Your task to perform on an android device: install app "Pluto TV - Live TV and Movies" Image 0: 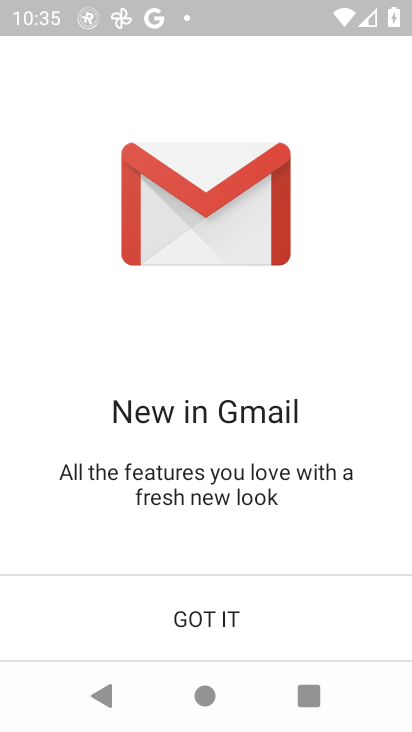
Step 0: press back button
Your task to perform on an android device: install app "Pluto TV - Live TV and Movies" Image 1: 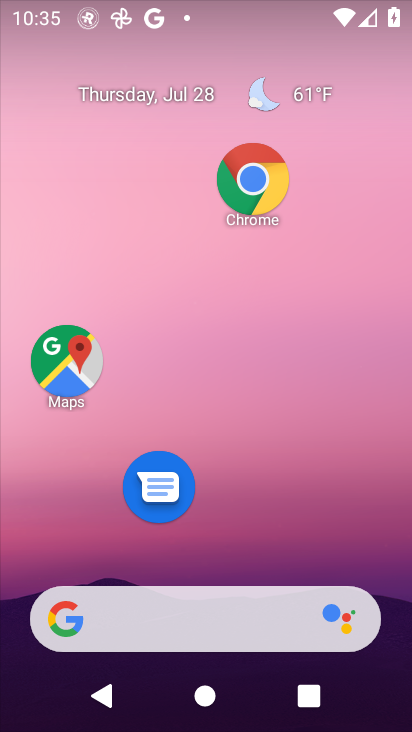
Step 1: drag from (195, 440) to (130, 31)
Your task to perform on an android device: install app "Pluto TV - Live TV and Movies" Image 2: 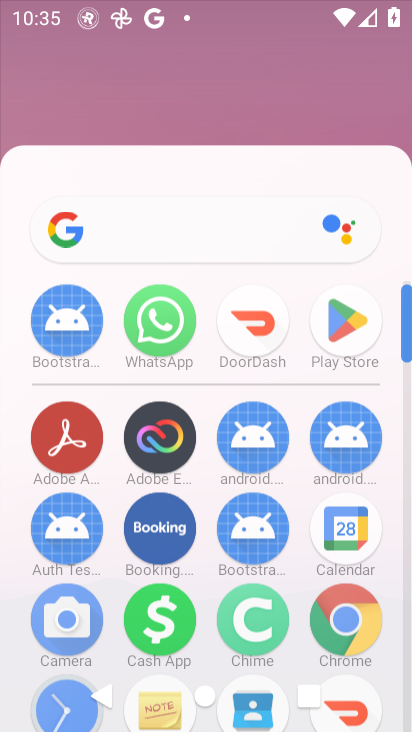
Step 2: drag from (197, 433) to (183, 91)
Your task to perform on an android device: install app "Pluto TV - Live TV and Movies" Image 3: 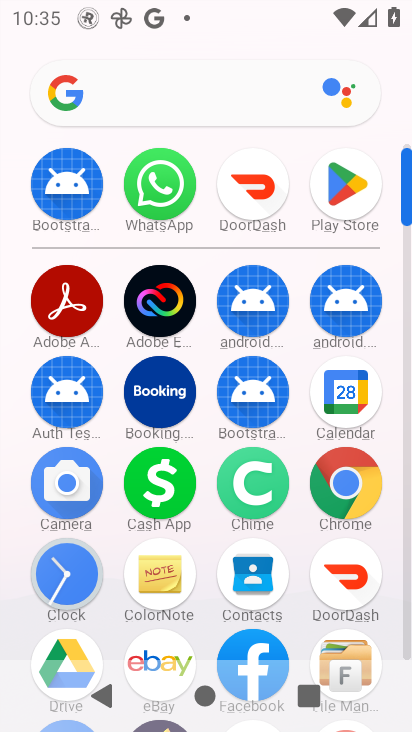
Step 3: click (340, 184)
Your task to perform on an android device: install app "Pluto TV - Live TV and Movies" Image 4: 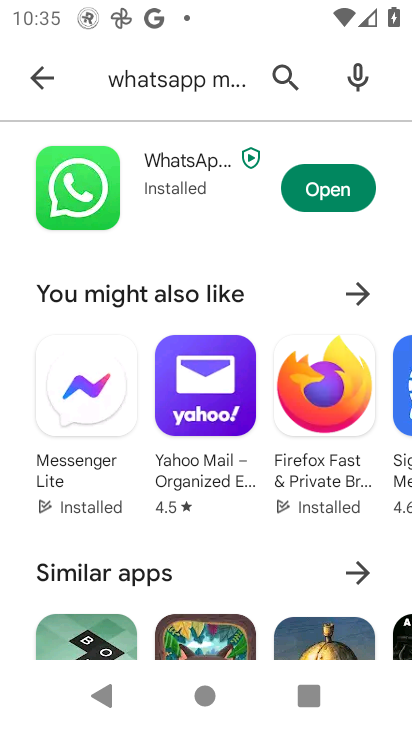
Step 4: click (26, 76)
Your task to perform on an android device: install app "Pluto TV - Live TV and Movies" Image 5: 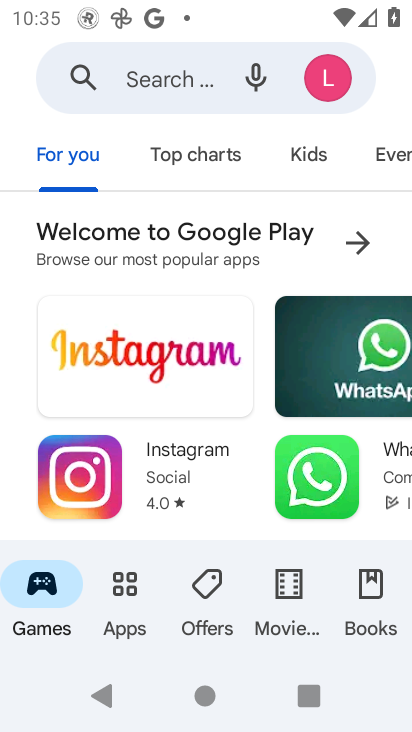
Step 5: click (129, 75)
Your task to perform on an android device: install app "Pluto TV - Live TV and Movies" Image 6: 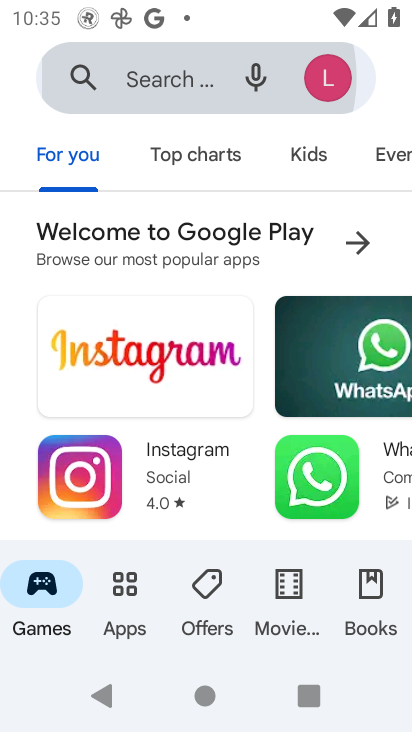
Step 6: click (129, 75)
Your task to perform on an android device: install app "Pluto TV - Live TV and Movies" Image 7: 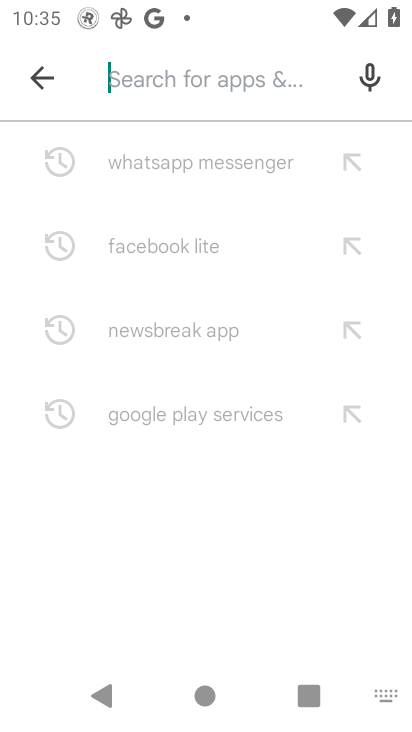
Step 7: click (129, 76)
Your task to perform on an android device: install app "Pluto TV - Live TV and Movies" Image 8: 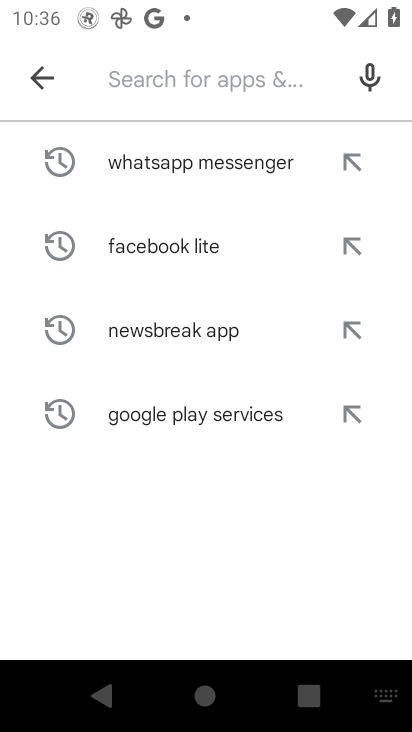
Step 8: type "Pluto- TV- Live TV and Movies"
Your task to perform on an android device: install app "Pluto TV - Live TV and Movies" Image 9: 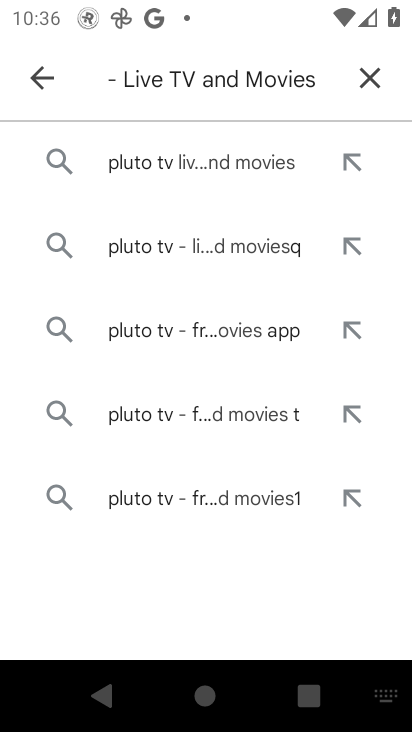
Step 9: click (216, 156)
Your task to perform on an android device: install app "Pluto TV - Live TV and Movies" Image 10: 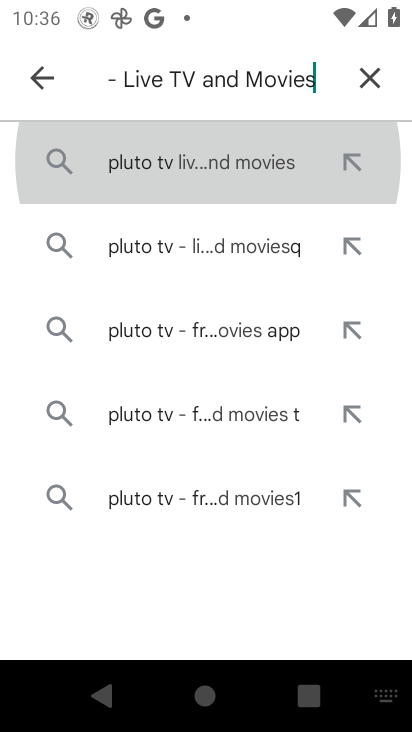
Step 10: click (215, 156)
Your task to perform on an android device: install app "Pluto TV - Live TV and Movies" Image 11: 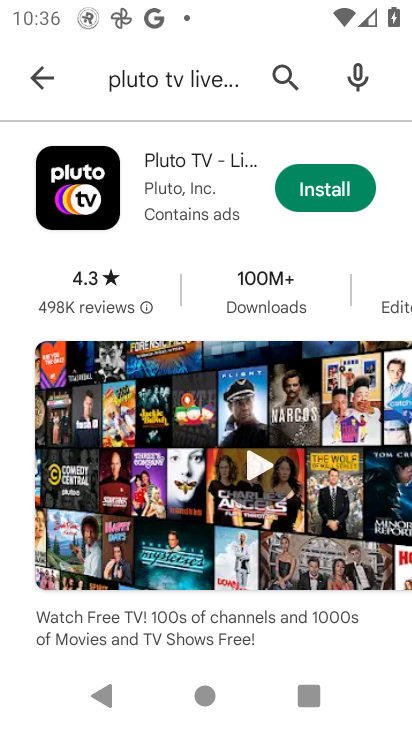
Step 11: click (317, 191)
Your task to perform on an android device: install app "Pluto TV - Live TV and Movies" Image 12: 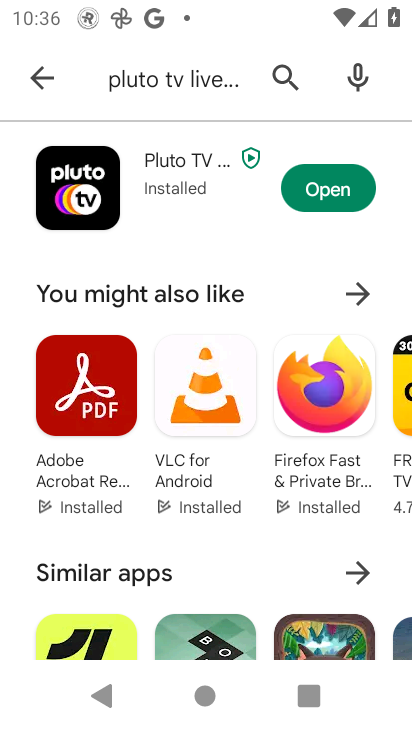
Step 12: click (310, 194)
Your task to perform on an android device: install app "Pluto TV - Live TV and Movies" Image 13: 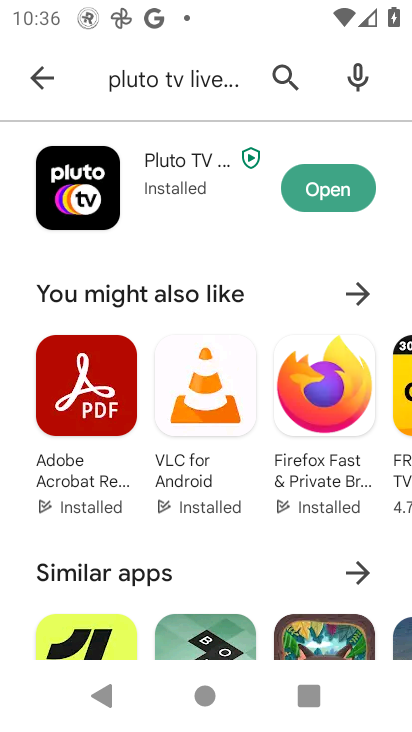
Step 13: click (311, 193)
Your task to perform on an android device: install app "Pluto TV - Live TV and Movies" Image 14: 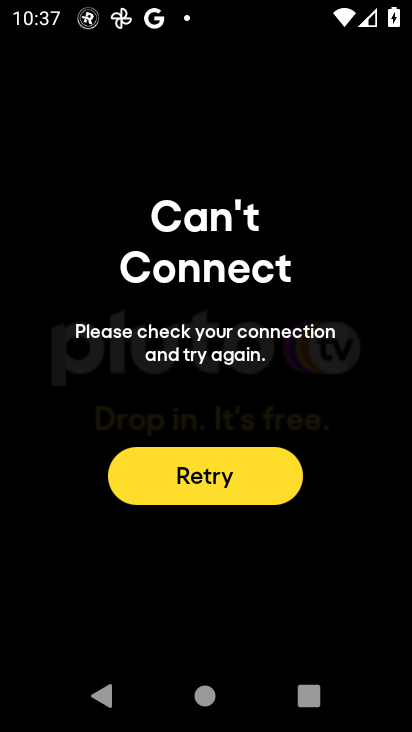
Step 14: click (313, 251)
Your task to perform on an android device: install app "Pluto TV - Live TV and Movies" Image 15: 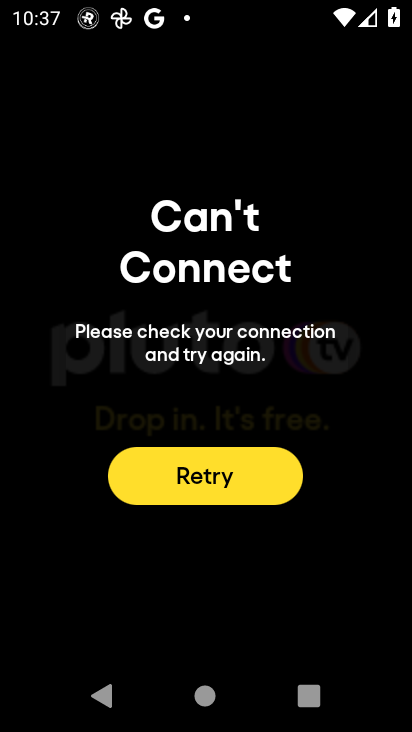
Step 15: click (314, 255)
Your task to perform on an android device: install app "Pluto TV - Live TV and Movies" Image 16: 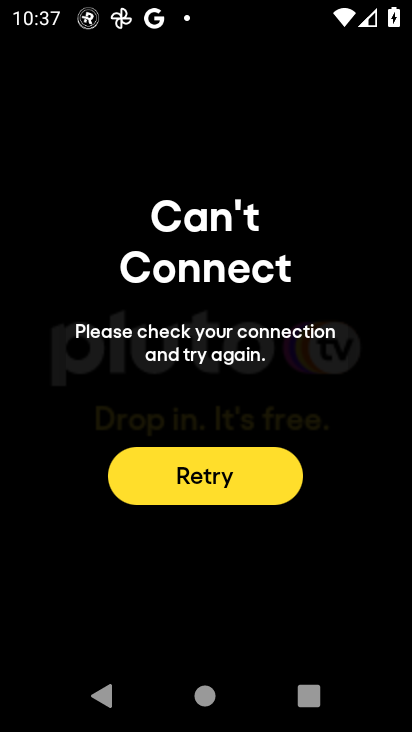
Step 16: click (314, 255)
Your task to perform on an android device: install app "Pluto TV - Live TV and Movies" Image 17: 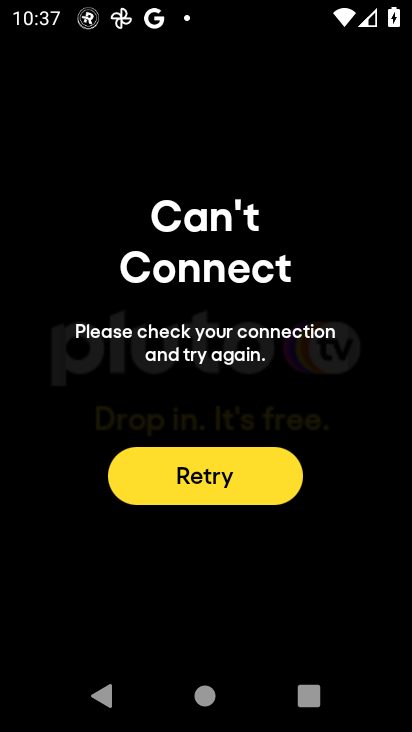
Step 17: click (323, 257)
Your task to perform on an android device: install app "Pluto TV - Live TV and Movies" Image 18: 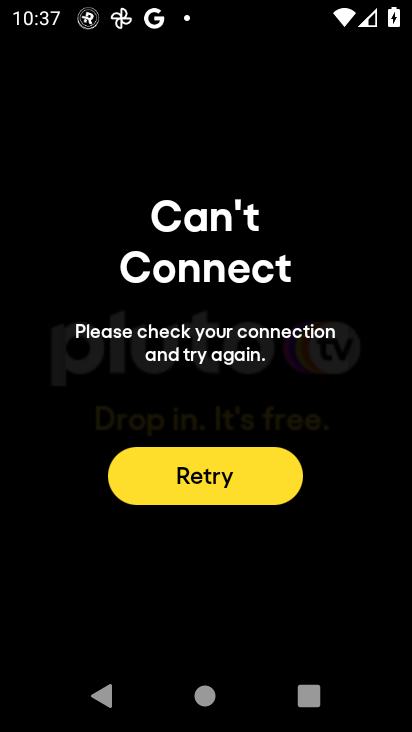
Step 18: click (323, 257)
Your task to perform on an android device: install app "Pluto TV - Live TV and Movies" Image 19: 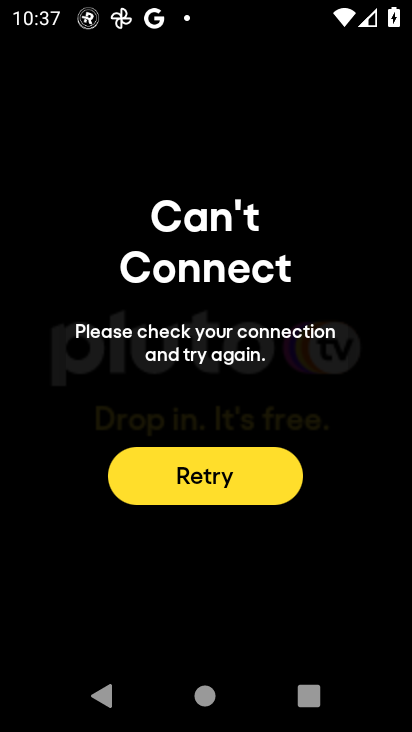
Step 19: click (323, 257)
Your task to perform on an android device: install app "Pluto TV - Live TV and Movies" Image 20: 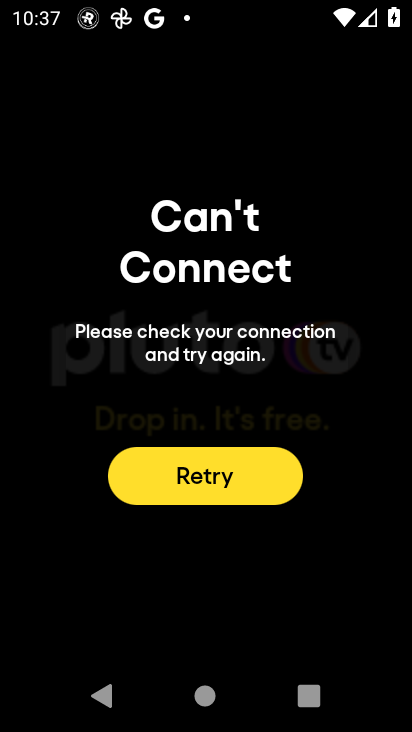
Step 20: click (323, 257)
Your task to perform on an android device: install app "Pluto TV - Live TV and Movies" Image 21: 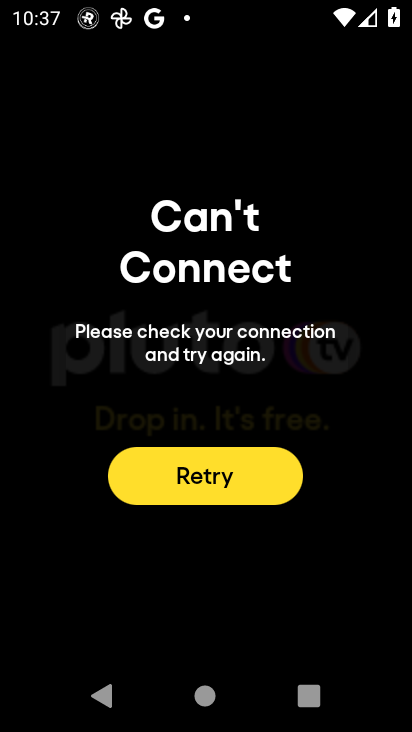
Step 21: click (323, 257)
Your task to perform on an android device: install app "Pluto TV - Live TV and Movies" Image 22: 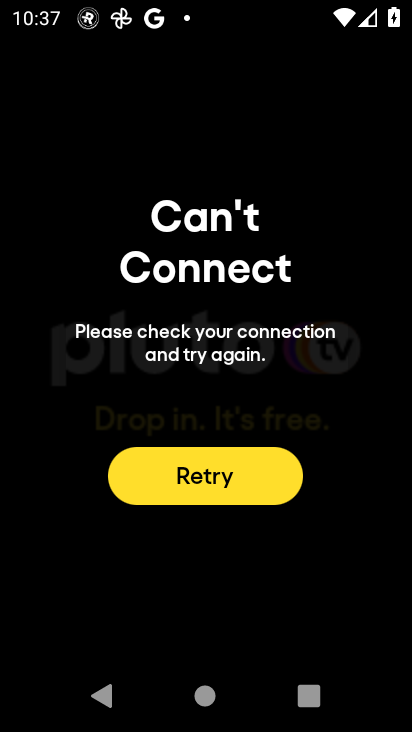
Step 22: click (324, 258)
Your task to perform on an android device: install app "Pluto TV - Live TV and Movies" Image 23: 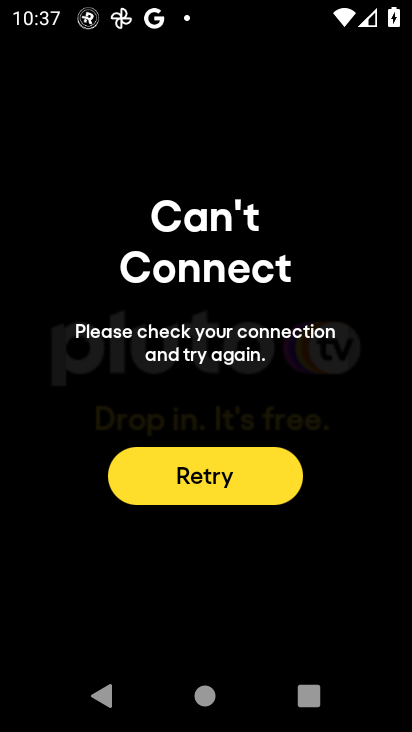
Step 23: click (326, 259)
Your task to perform on an android device: install app "Pluto TV - Live TV and Movies" Image 24: 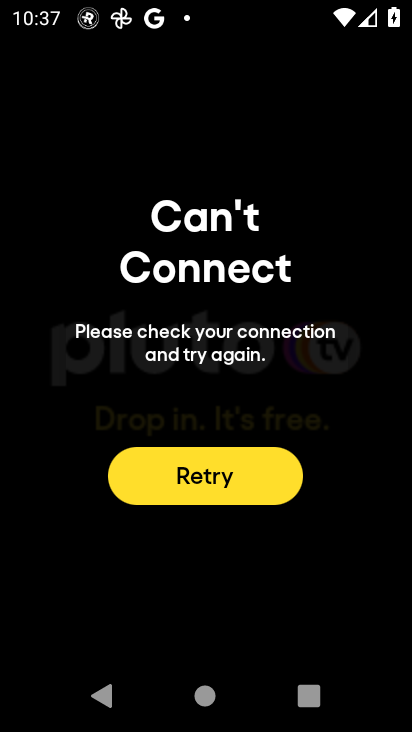
Step 24: press back button
Your task to perform on an android device: install app "Pluto TV - Live TV and Movies" Image 25: 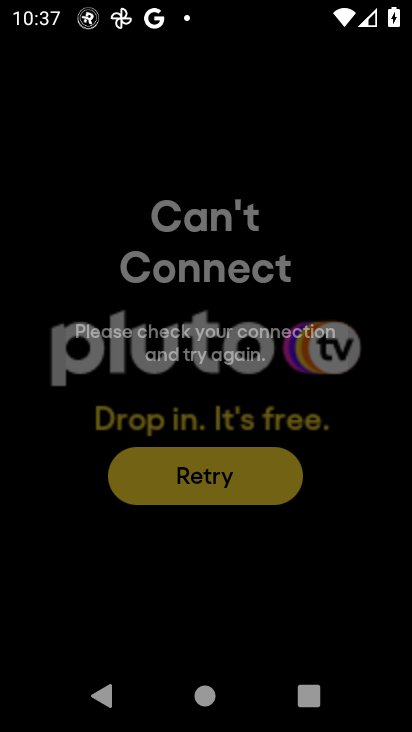
Step 25: press back button
Your task to perform on an android device: install app "Pluto TV - Live TV and Movies" Image 26: 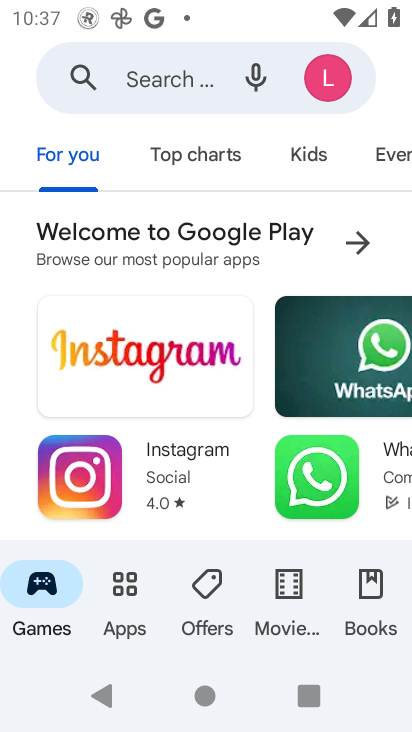
Step 26: click (148, 75)
Your task to perform on an android device: install app "Pluto TV - Live TV and Movies" Image 27: 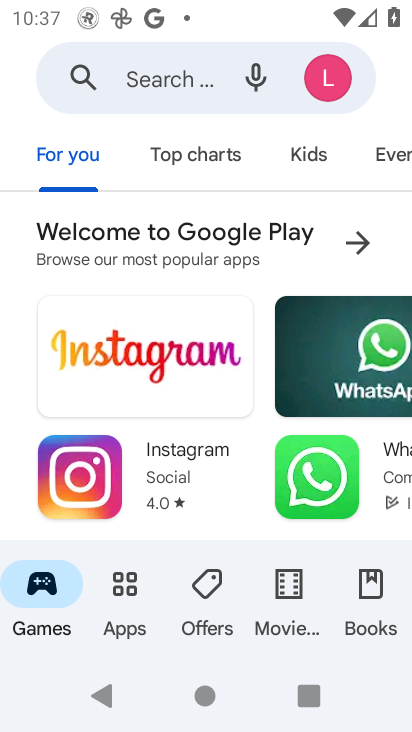
Step 27: click (148, 73)
Your task to perform on an android device: install app "Pluto TV - Live TV and Movies" Image 28: 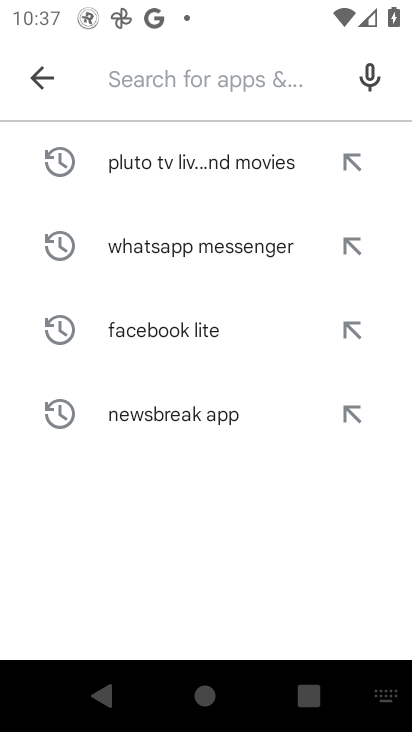
Step 28: click (299, 157)
Your task to perform on an android device: install app "Pluto TV - Live TV and Movies" Image 29: 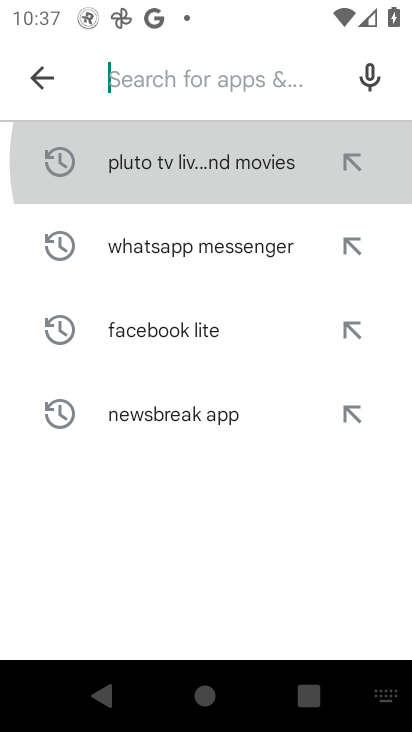
Step 29: click (299, 157)
Your task to perform on an android device: install app "Pluto TV - Live TV and Movies" Image 30: 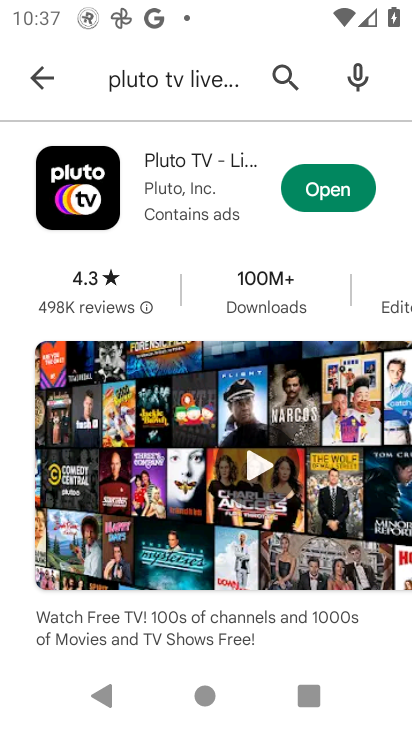
Step 30: click (320, 193)
Your task to perform on an android device: install app "Pluto TV - Live TV and Movies" Image 31: 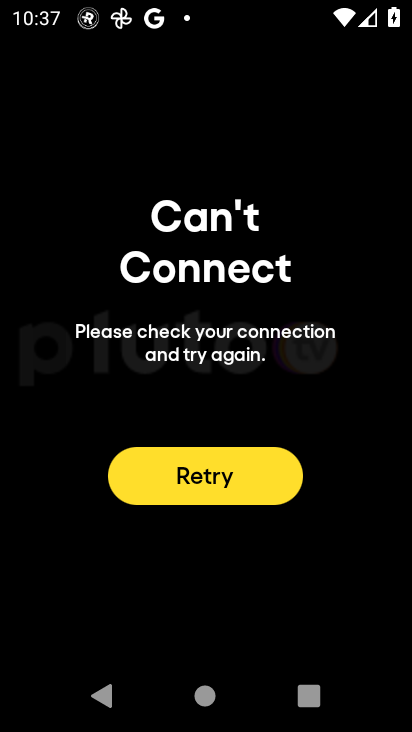
Step 31: click (207, 467)
Your task to perform on an android device: install app "Pluto TV - Live TV and Movies" Image 32: 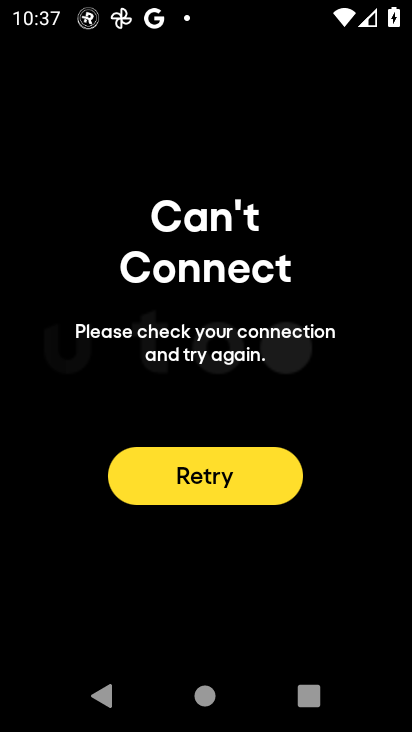
Step 32: click (242, 474)
Your task to perform on an android device: install app "Pluto TV - Live TV and Movies" Image 33: 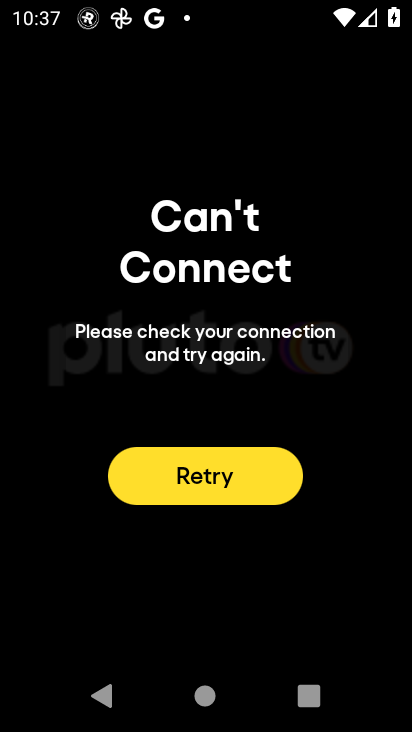
Step 33: click (234, 466)
Your task to perform on an android device: install app "Pluto TV - Live TV and Movies" Image 34: 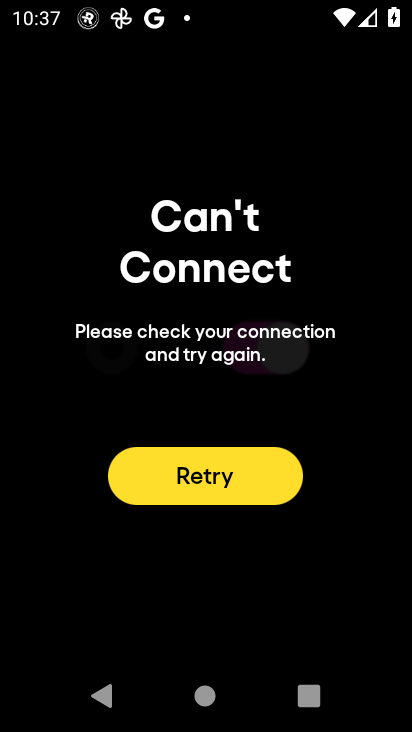
Step 34: task complete